Your task to perform on an android device: Is it going to rain today? Image 0: 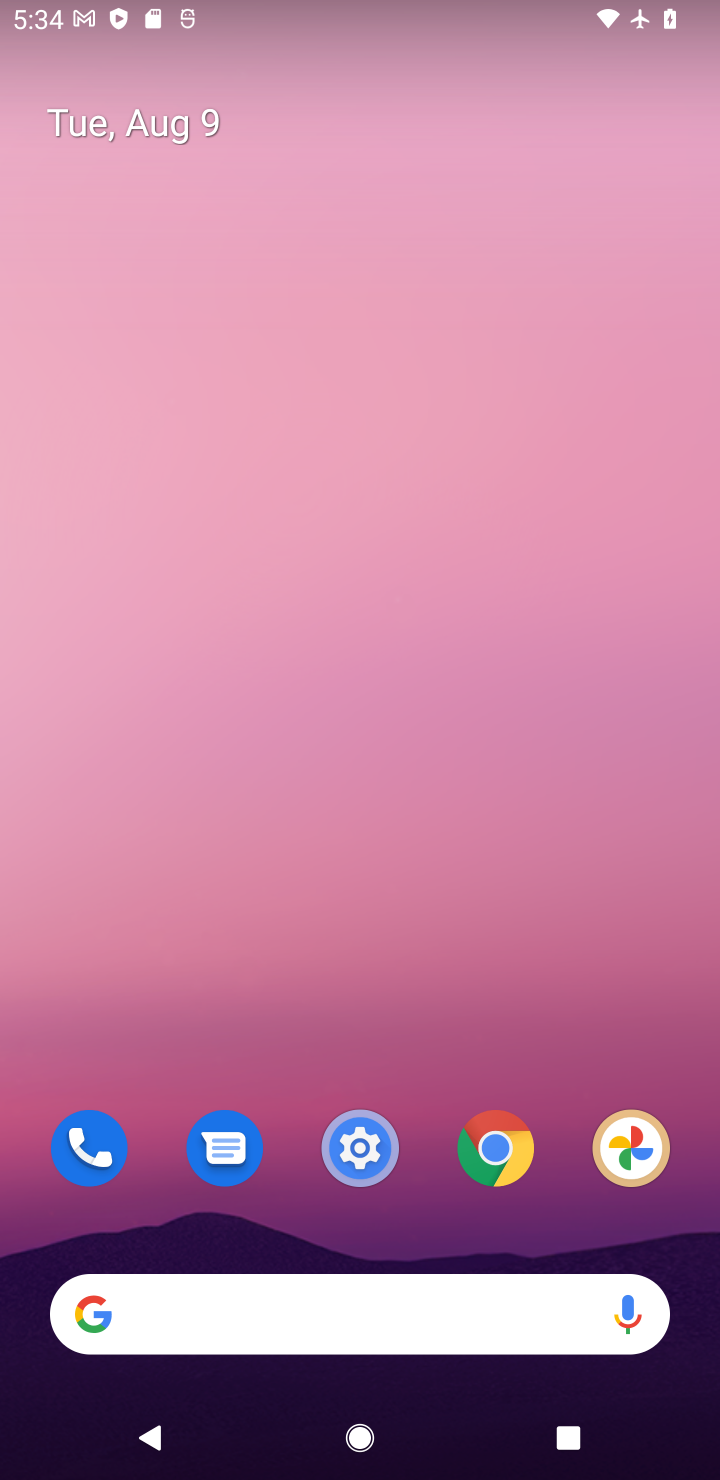
Step 0: click (297, 1329)
Your task to perform on an android device: Is it going to rain today? Image 1: 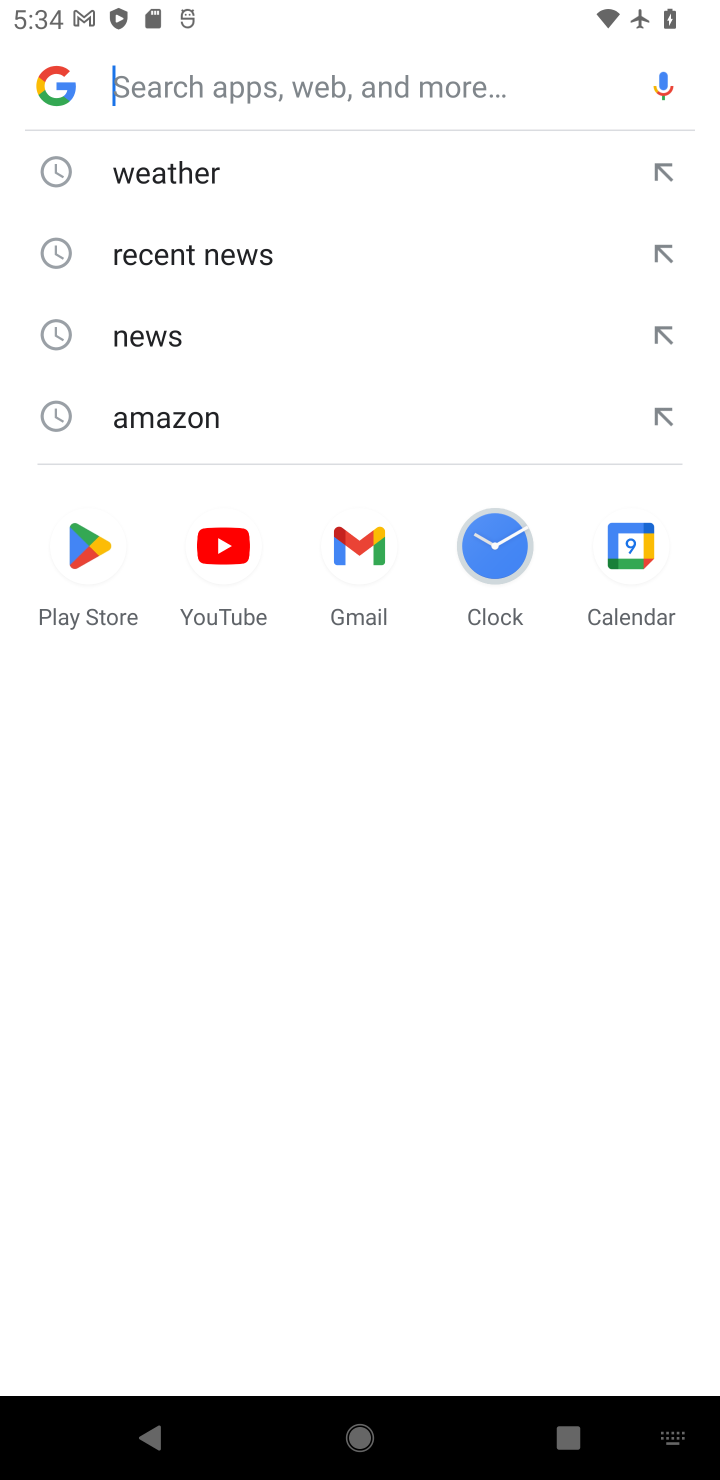
Step 1: click (195, 177)
Your task to perform on an android device: Is it going to rain today? Image 2: 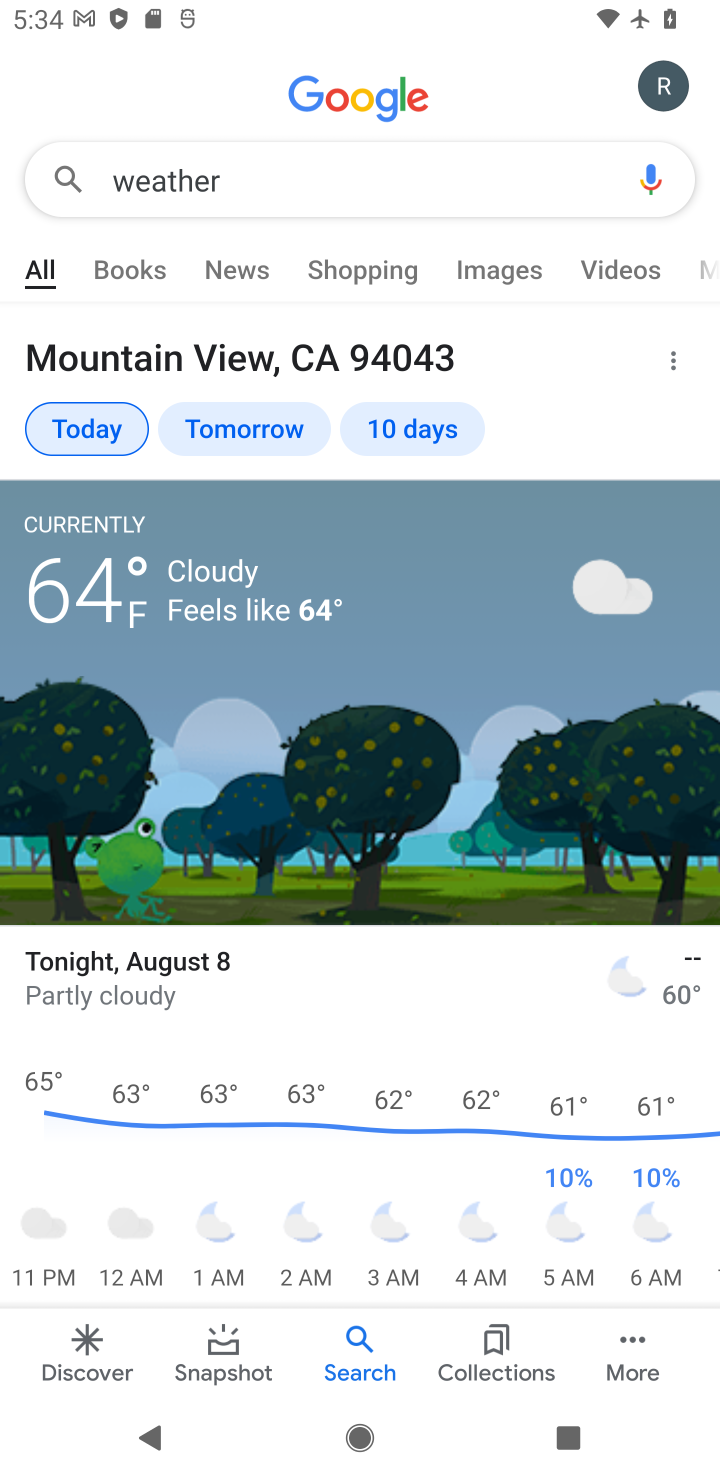
Step 2: task complete